Your task to perform on an android device: Is it going to rain tomorrow? Image 0: 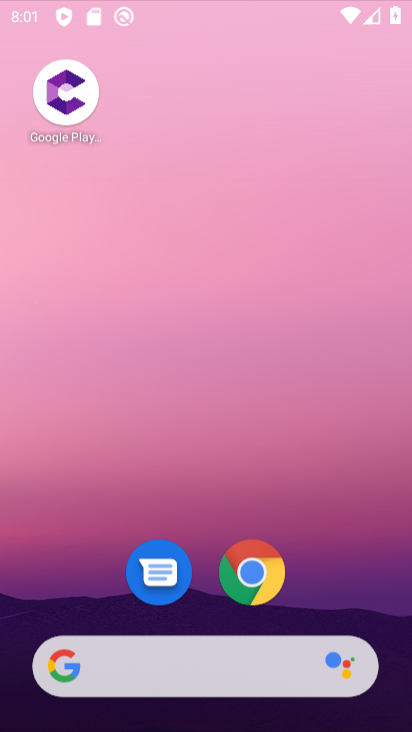
Step 0: click (296, 30)
Your task to perform on an android device: Is it going to rain tomorrow? Image 1: 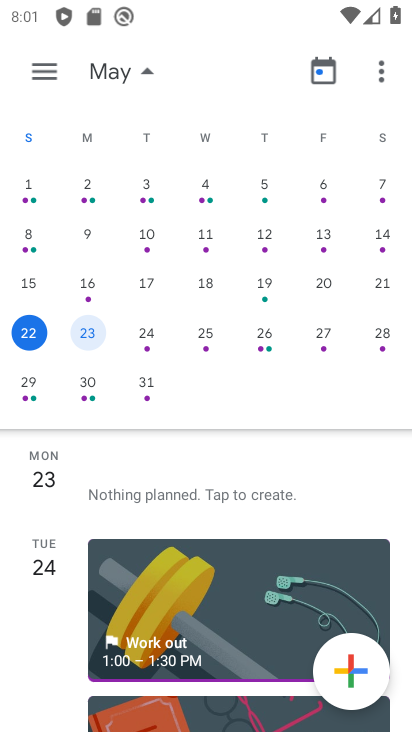
Step 1: drag from (234, 606) to (291, 65)
Your task to perform on an android device: Is it going to rain tomorrow? Image 2: 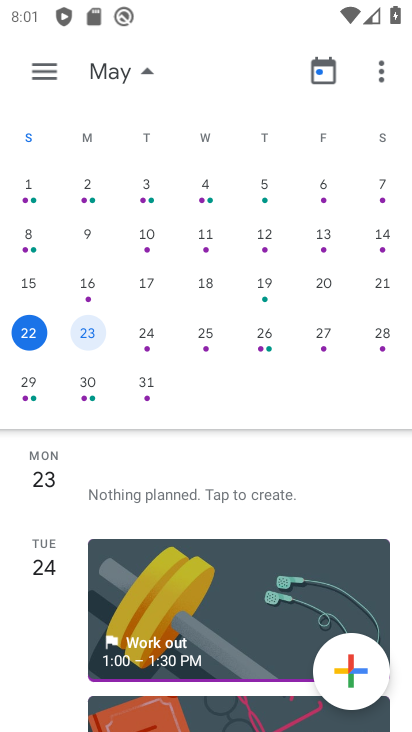
Step 2: drag from (260, 644) to (306, 166)
Your task to perform on an android device: Is it going to rain tomorrow? Image 3: 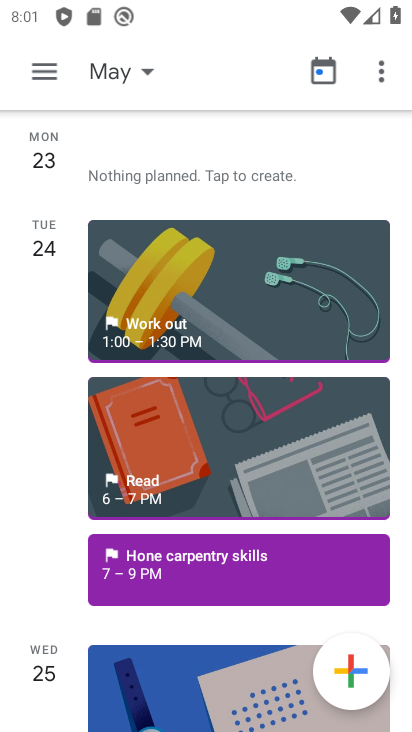
Step 3: drag from (197, 559) to (214, 137)
Your task to perform on an android device: Is it going to rain tomorrow? Image 4: 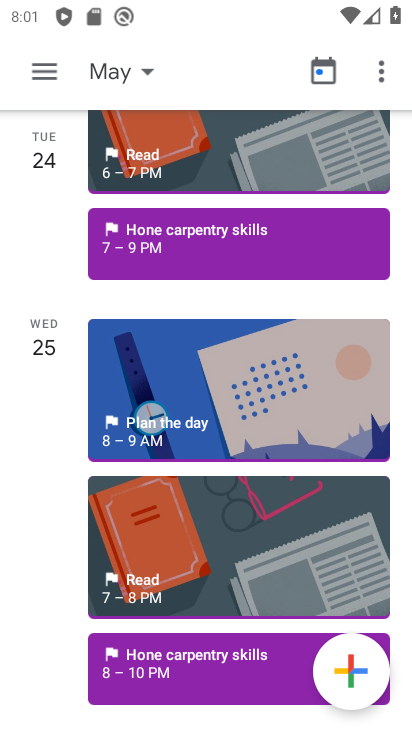
Step 4: click (134, 73)
Your task to perform on an android device: Is it going to rain tomorrow? Image 5: 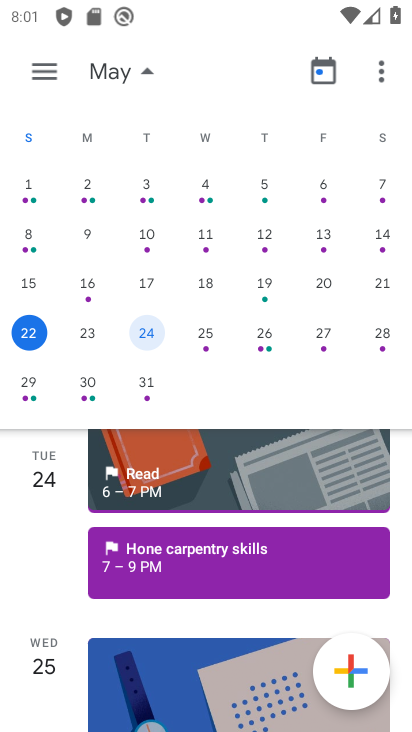
Step 5: press home button
Your task to perform on an android device: Is it going to rain tomorrow? Image 6: 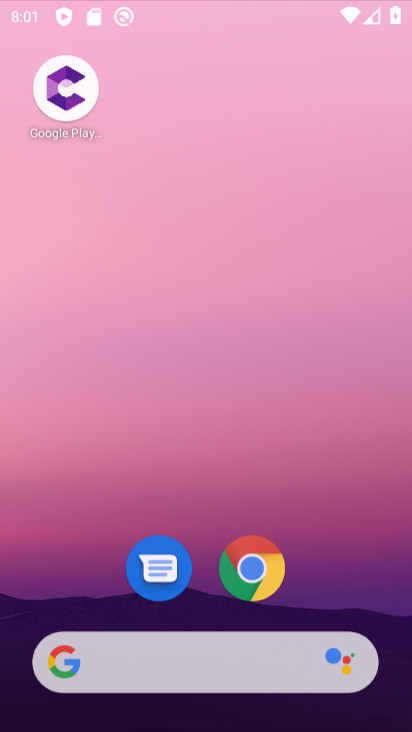
Step 6: drag from (208, 619) to (246, 101)
Your task to perform on an android device: Is it going to rain tomorrow? Image 7: 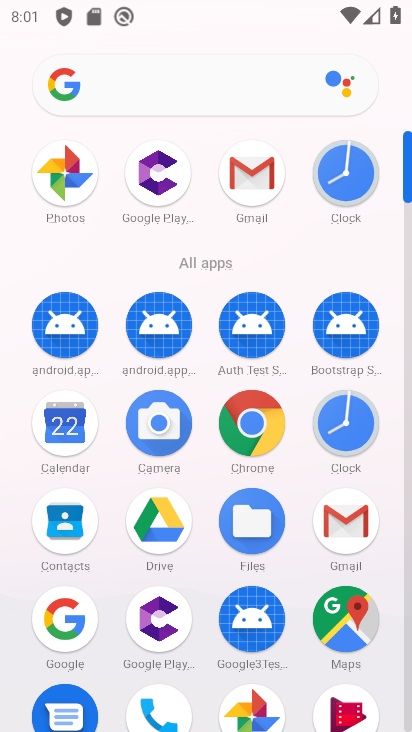
Step 7: click (121, 84)
Your task to perform on an android device: Is it going to rain tomorrow? Image 8: 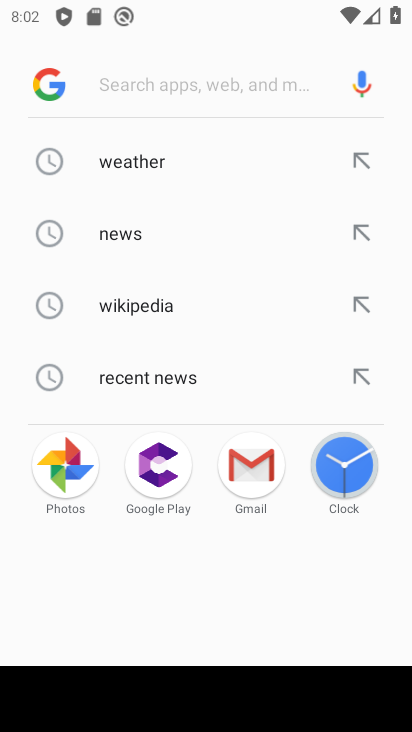
Step 8: type "rain tomorrow"
Your task to perform on an android device: Is it going to rain tomorrow? Image 9: 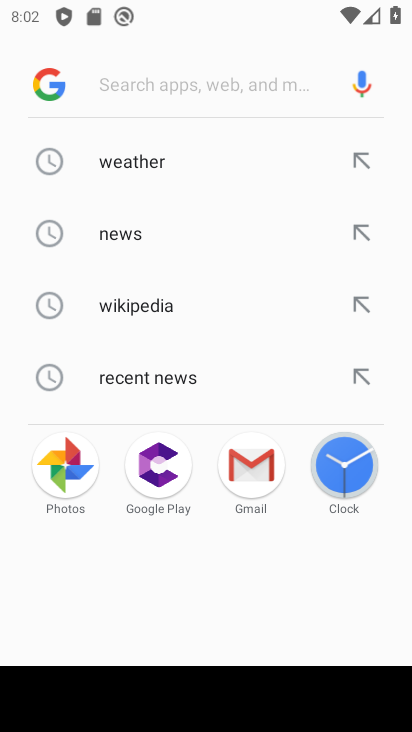
Step 9: click (120, 82)
Your task to perform on an android device: Is it going to rain tomorrow? Image 10: 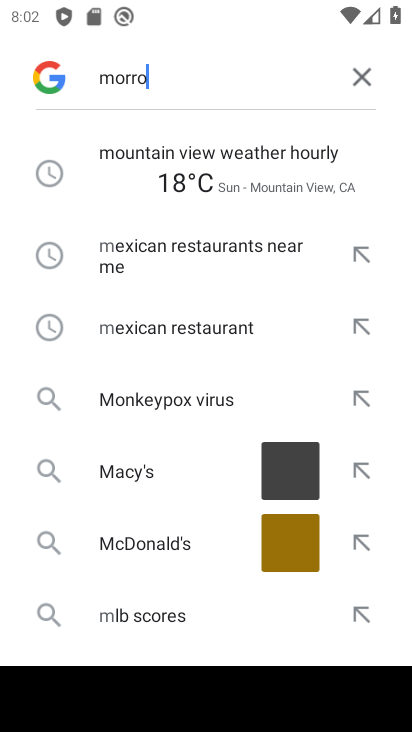
Step 10: click (120, 82)
Your task to perform on an android device: Is it going to rain tomorrow? Image 11: 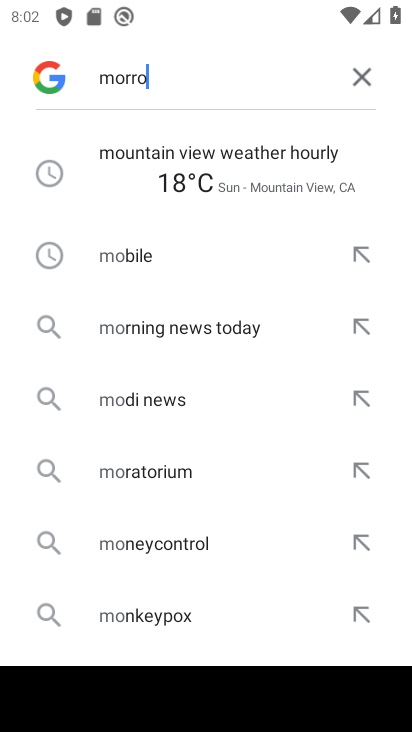
Step 11: click (120, 82)
Your task to perform on an android device: Is it going to rain tomorrow? Image 12: 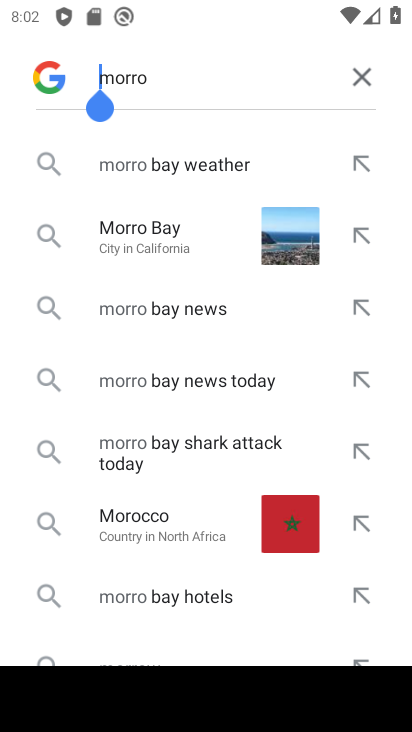
Step 12: click (125, 78)
Your task to perform on an android device: Is it going to rain tomorrow? Image 13: 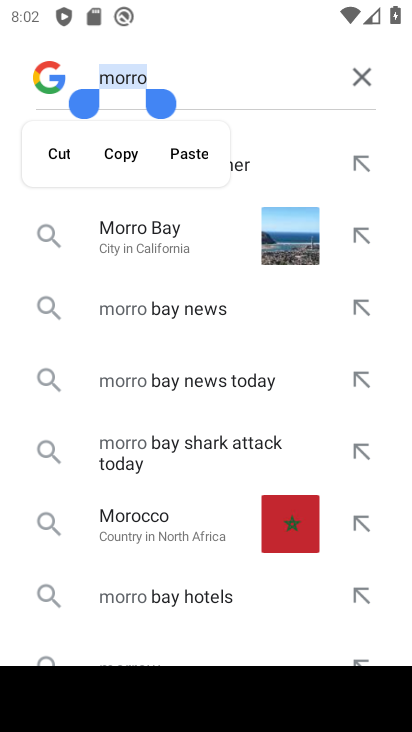
Step 13: click (368, 74)
Your task to perform on an android device: Is it going to rain tomorrow? Image 14: 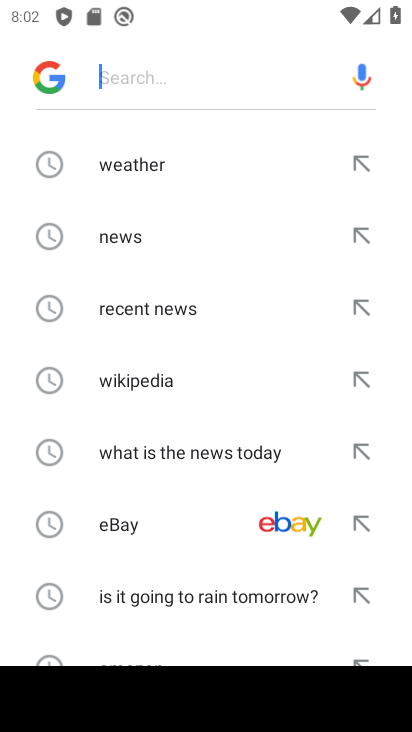
Step 14: type "going to rain tomorrow"
Your task to perform on an android device: Is it going to rain tomorrow? Image 15: 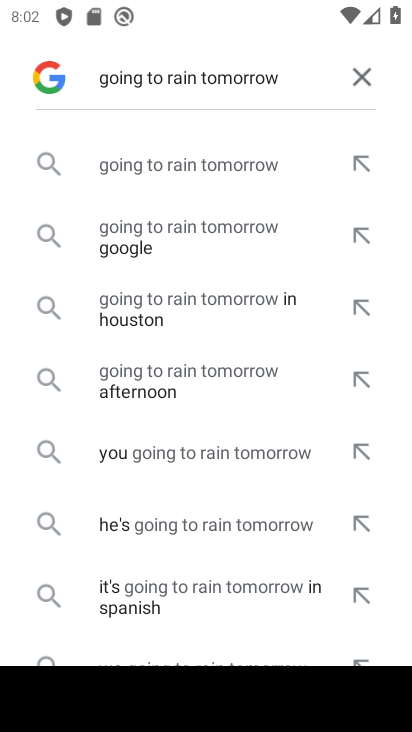
Step 15: click (132, 154)
Your task to perform on an android device: Is it going to rain tomorrow? Image 16: 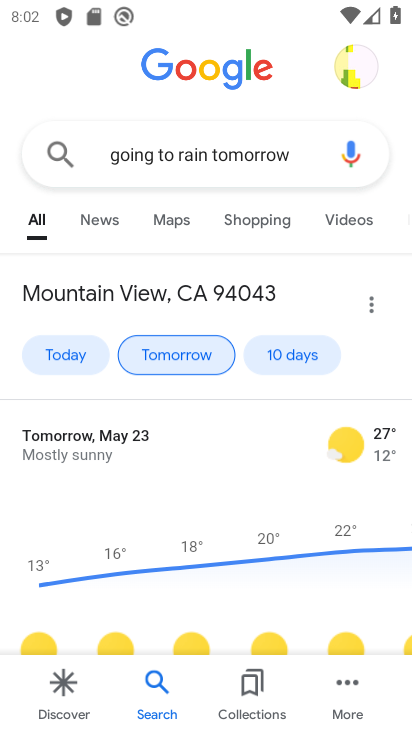
Step 16: task complete